Your task to perform on an android device: turn notification dots on Image 0: 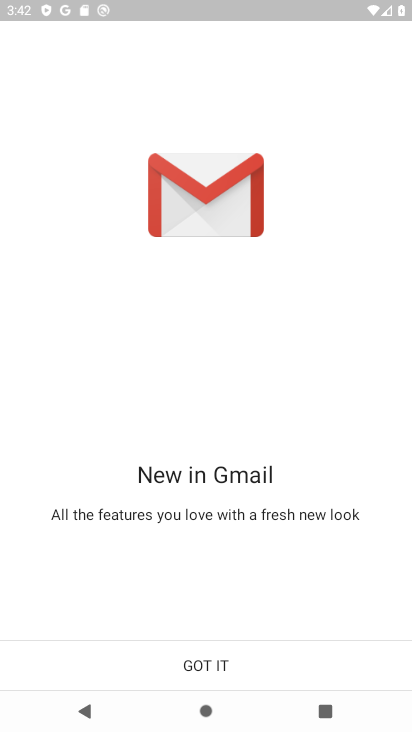
Step 0: press home button
Your task to perform on an android device: turn notification dots on Image 1: 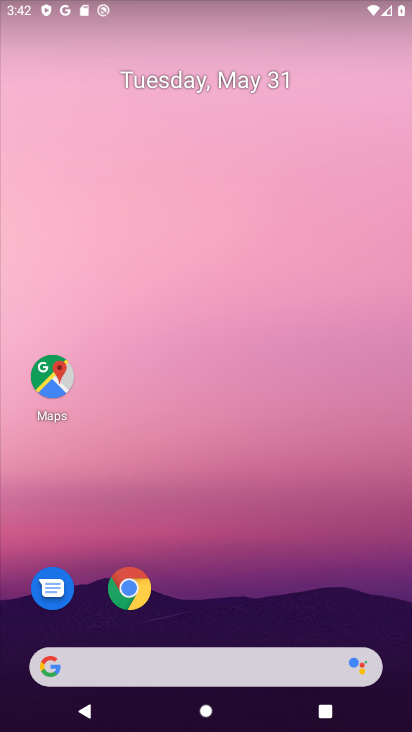
Step 1: drag from (263, 622) to (285, 160)
Your task to perform on an android device: turn notification dots on Image 2: 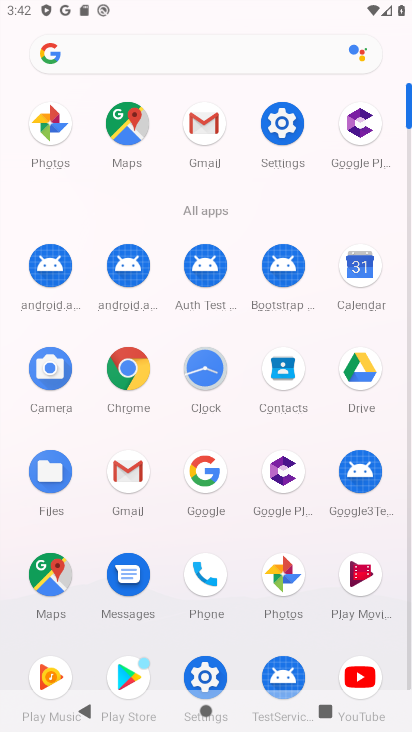
Step 2: click (303, 116)
Your task to perform on an android device: turn notification dots on Image 3: 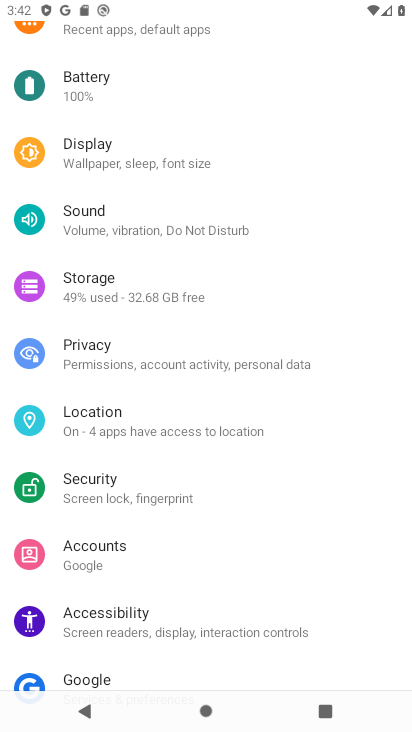
Step 3: drag from (106, 135) to (145, 557)
Your task to perform on an android device: turn notification dots on Image 4: 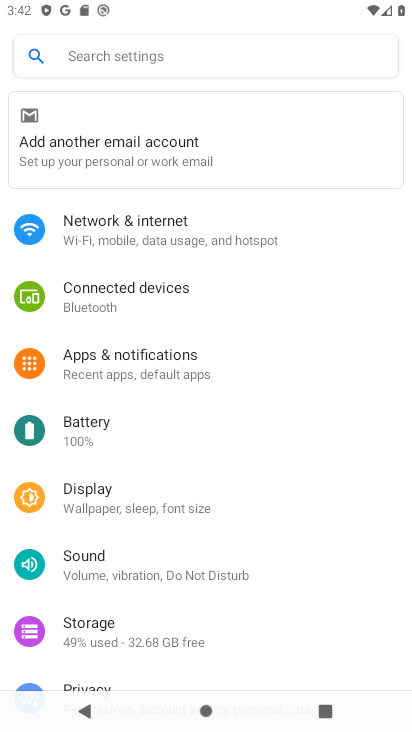
Step 4: click (48, 349)
Your task to perform on an android device: turn notification dots on Image 5: 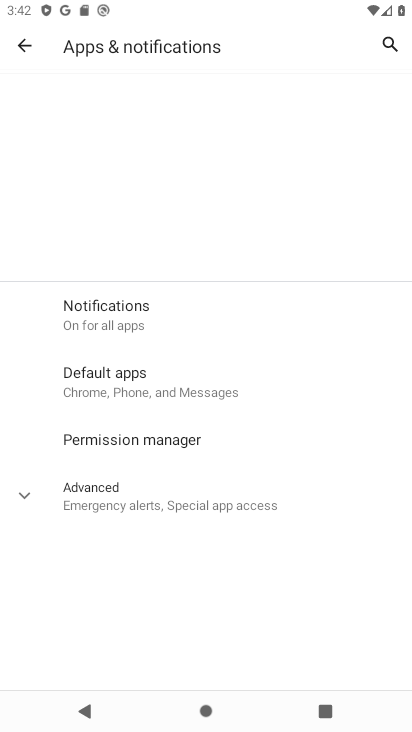
Step 5: click (133, 368)
Your task to perform on an android device: turn notification dots on Image 6: 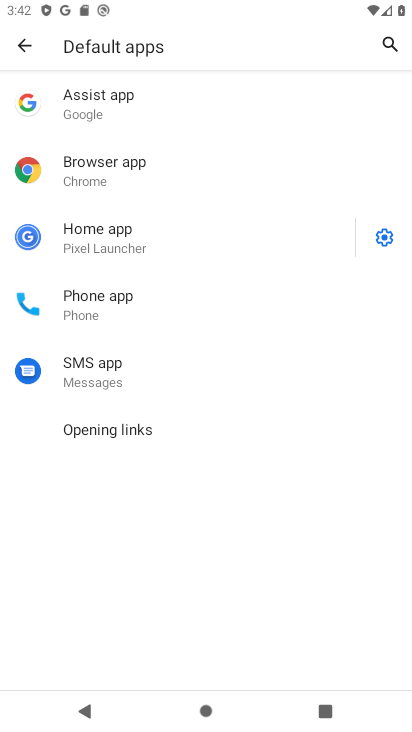
Step 6: task complete